Your task to perform on an android device: toggle notifications settings in the gmail app Image 0: 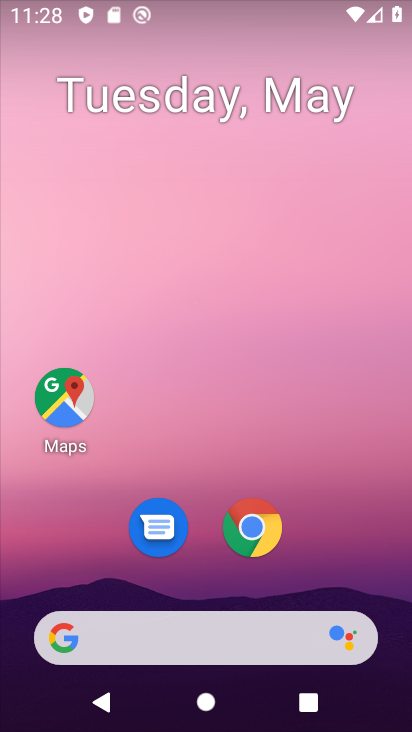
Step 0: drag from (250, 592) to (339, 3)
Your task to perform on an android device: toggle notifications settings in the gmail app Image 1: 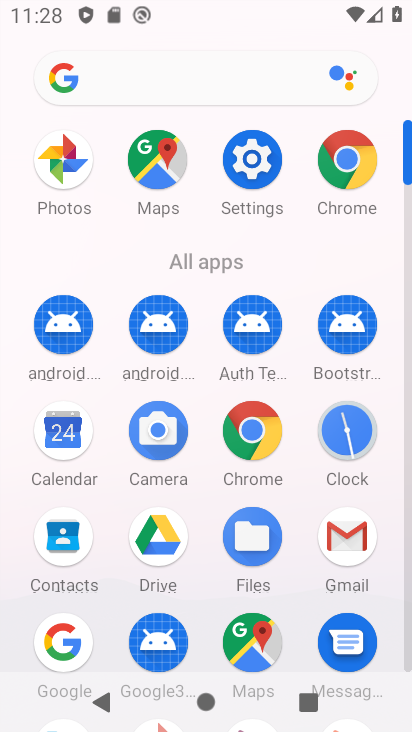
Step 1: drag from (334, 149) to (345, 117)
Your task to perform on an android device: toggle notifications settings in the gmail app Image 2: 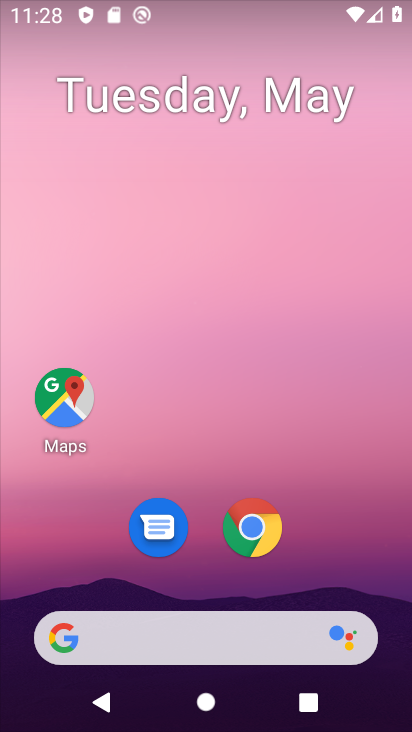
Step 2: click (339, 534)
Your task to perform on an android device: toggle notifications settings in the gmail app Image 3: 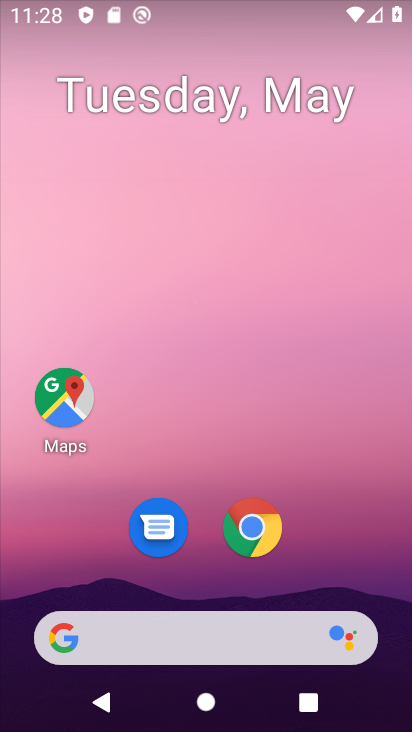
Step 3: drag from (319, 543) to (410, 52)
Your task to perform on an android device: toggle notifications settings in the gmail app Image 4: 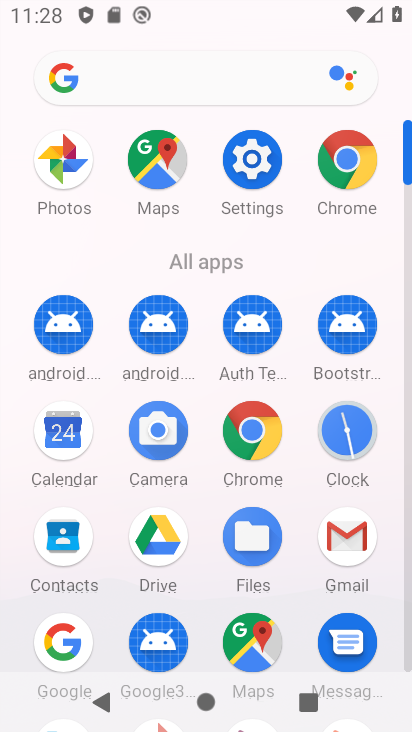
Step 4: click (352, 528)
Your task to perform on an android device: toggle notifications settings in the gmail app Image 5: 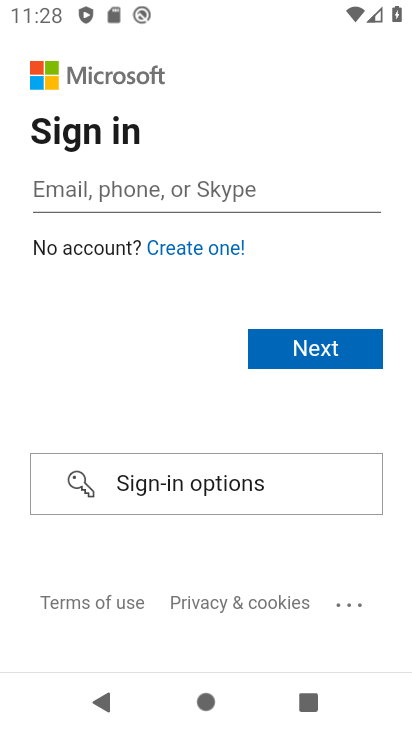
Step 5: press back button
Your task to perform on an android device: toggle notifications settings in the gmail app Image 6: 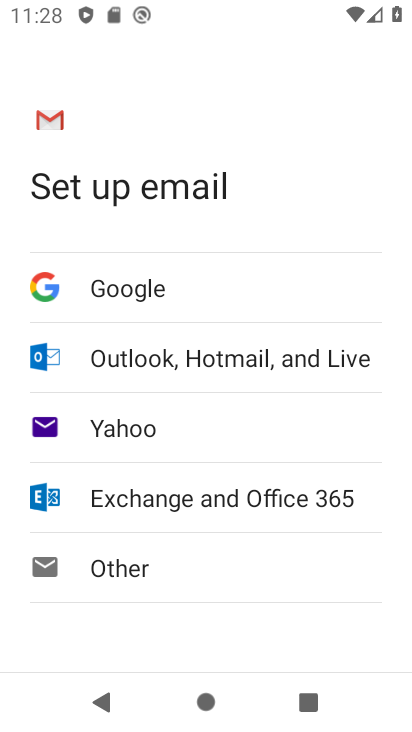
Step 6: press back button
Your task to perform on an android device: toggle notifications settings in the gmail app Image 7: 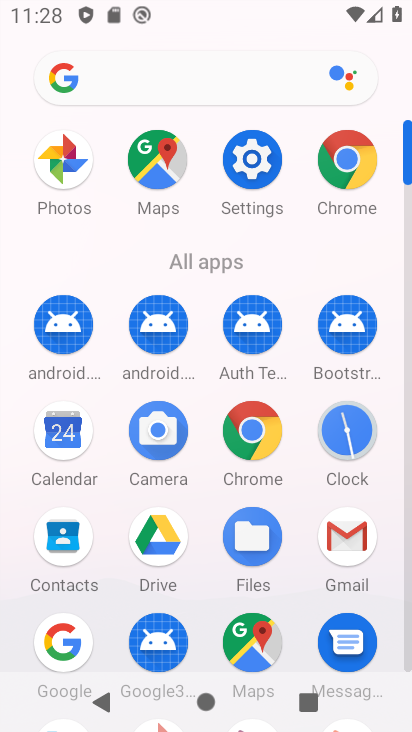
Step 7: click (344, 555)
Your task to perform on an android device: toggle notifications settings in the gmail app Image 8: 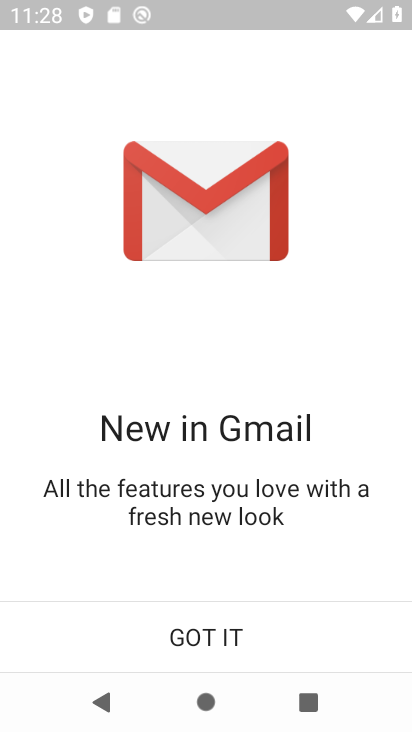
Step 8: click (246, 645)
Your task to perform on an android device: toggle notifications settings in the gmail app Image 9: 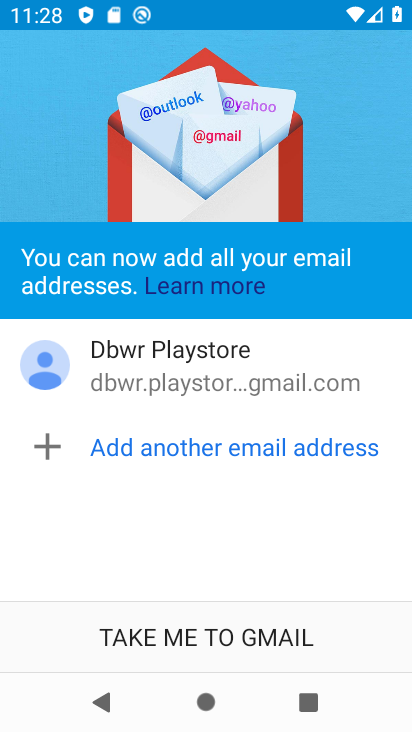
Step 9: click (240, 633)
Your task to perform on an android device: toggle notifications settings in the gmail app Image 10: 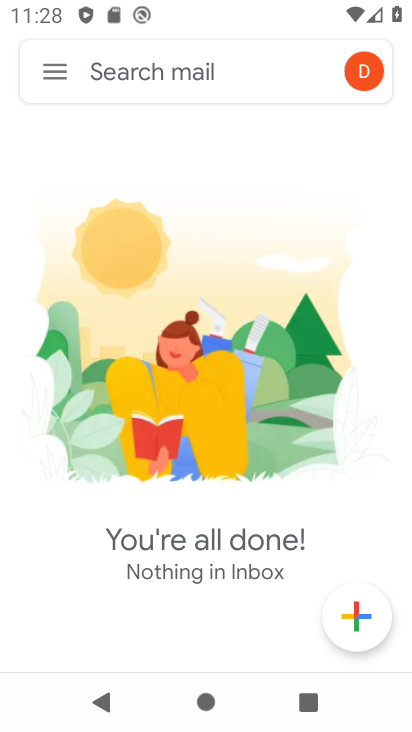
Step 10: click (41, 65)
Your task to perform on an android device: toggle notifications settings in the gmail app Image 11: 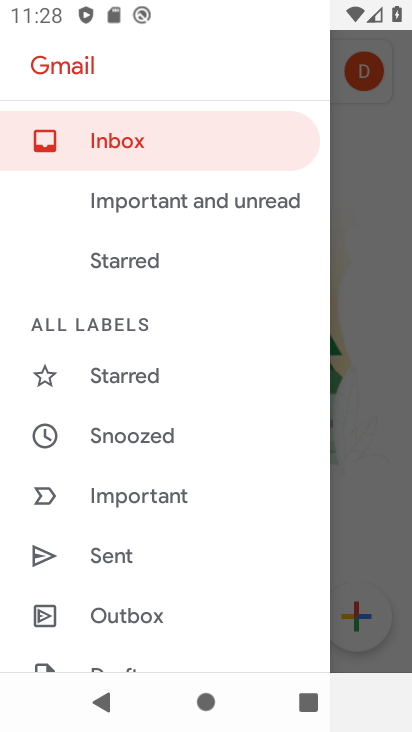
Step 11: drag from (140, 595) to (206, 9)
Your task to perform on an android device: toggle notifications settings in the gmail app Image 12: 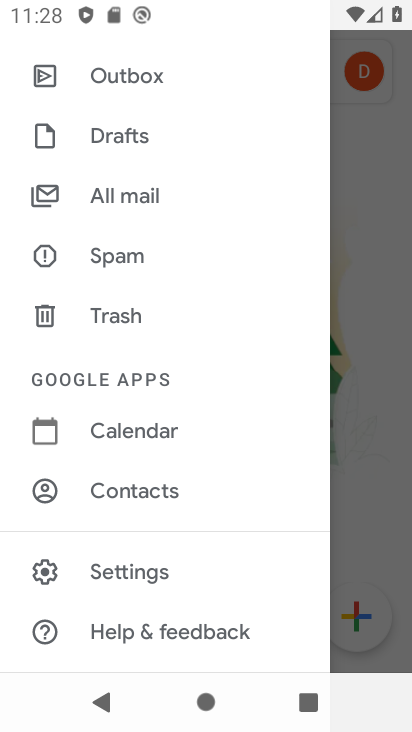
Step 12: click (197, 579)
Your task to perform on an android device: toggle notifications settings in the gmail app Image 13: 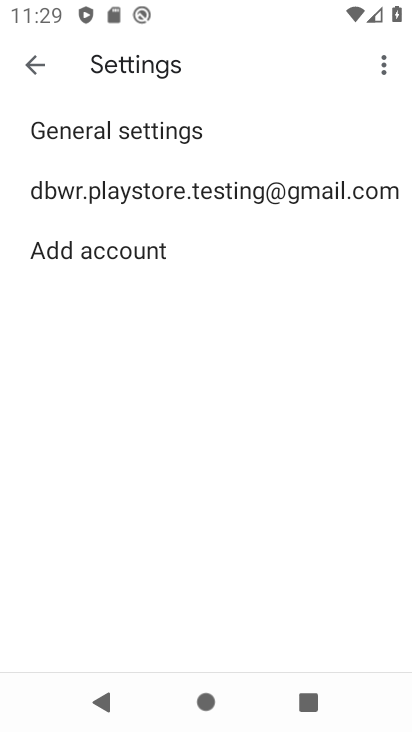
Step 13: click (157, 183)
Your task to perform on an android device: toggle notifications settings in the gmail app Image 14: 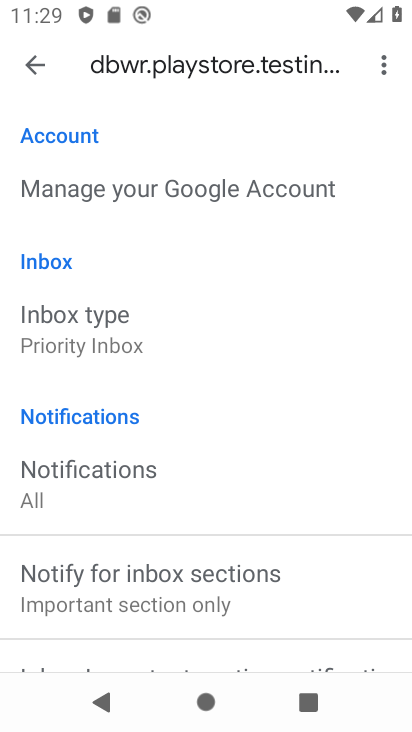
Step 14: drag from (130, 583) to (158, 145)
Your task to perform on an android device: toggle notifications settings in the gmail app Image 15: 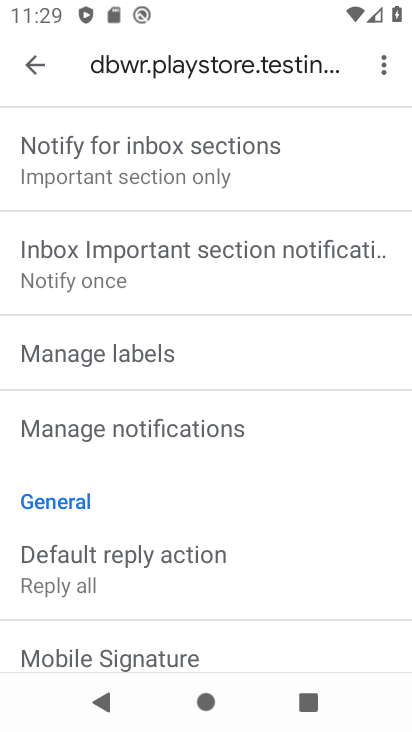
Step 15: click (144, 423)
Your task to perform on an android device: toggle notifications settings in the gmail app Image 16: 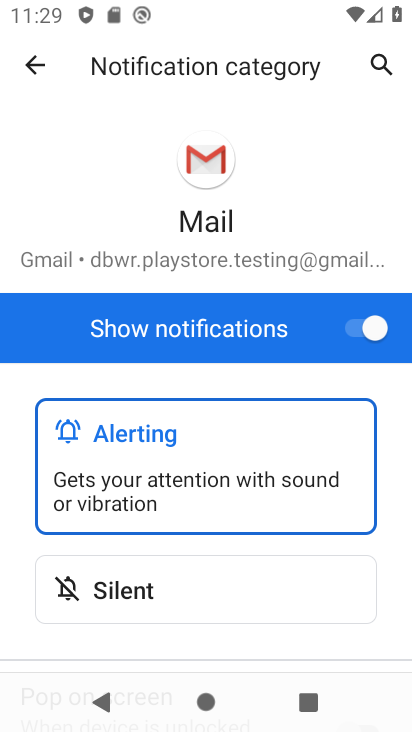
Step 16: click (349, 323)
Your task to perform on an android device: toggle notifications settings in the gmail app Image 17: 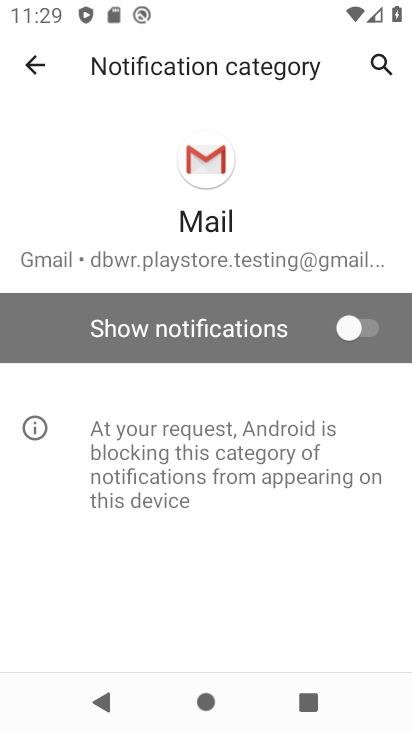
Step 17: task complete